Your task to perform on an android device: remove spam from my inbox in the gmail app Image 0: 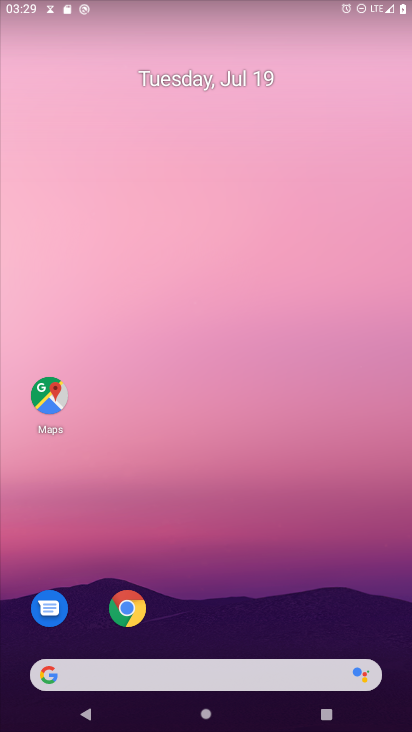
Step 0: drag from (327, 610) to (369, 2)
Your task to perform on an android device: remove spam from my inbox in the gmail app Image 1: 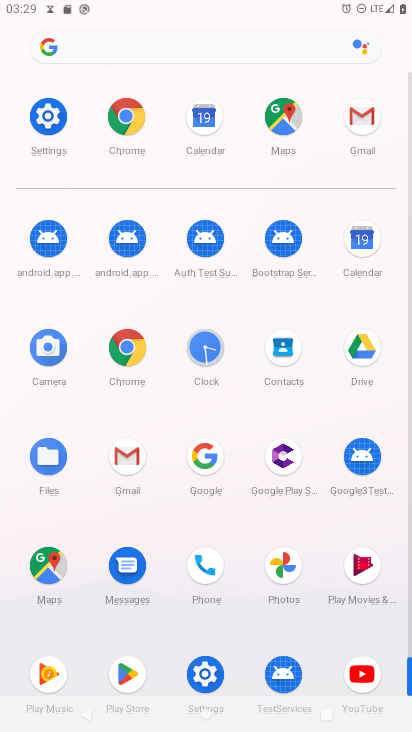
Step 1: click (123, 463)
Your task to perform on an android device: remove spam from my inbox in the gmail app Image 2: 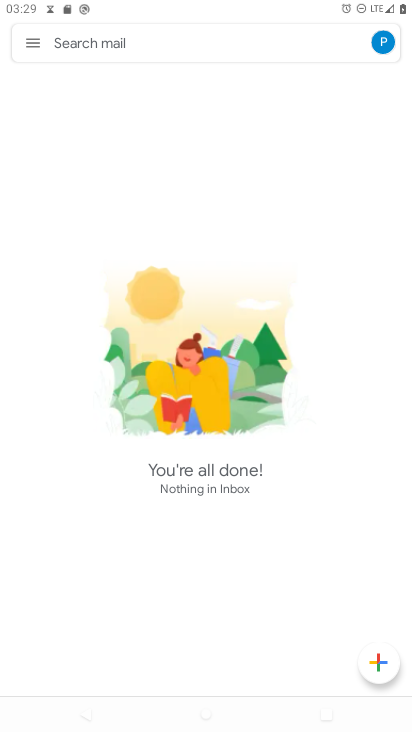
Step 2: click (35, 47)
Your task to perform on an android device: remove spam from my inbox in the gmail app Image 3: 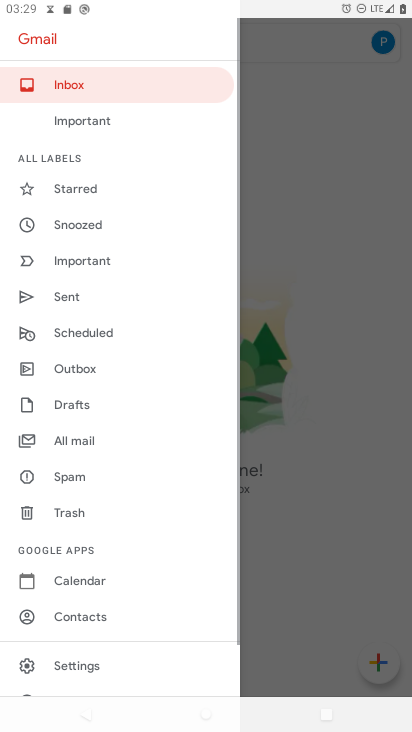
Step 3: click (68, 483)
Your task to perform on an android device: remove spam from my inbox in the gmail app Image 4: 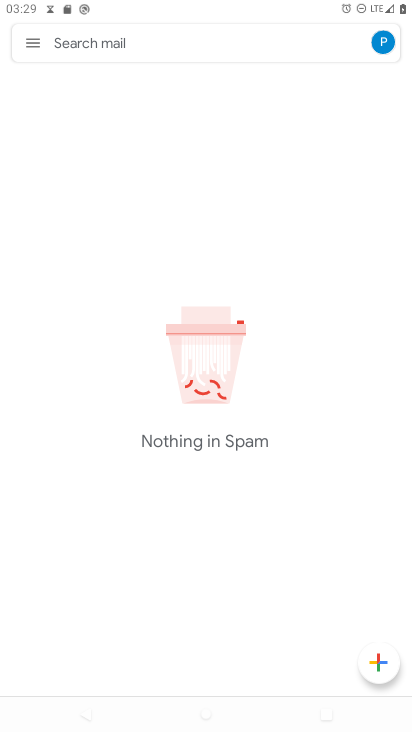
Step 4: task complete